Your task to perform on an android device: Do I have any events this weekend? Image 0: 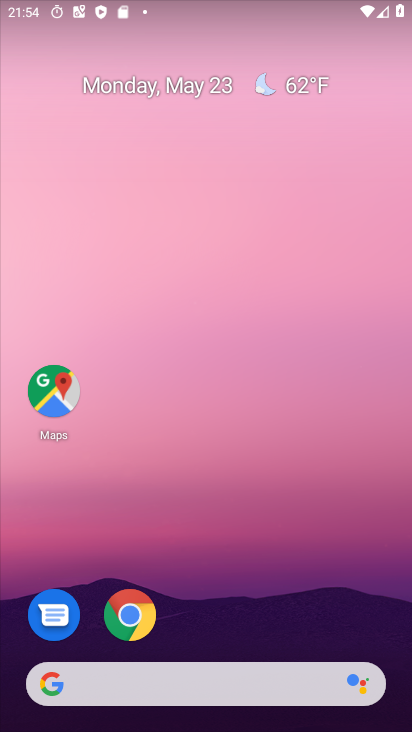
Step 0: drag from (236, 619) to (218, 106)
Your task to perform on an android device: Do I have any events this weekend? Image 1: 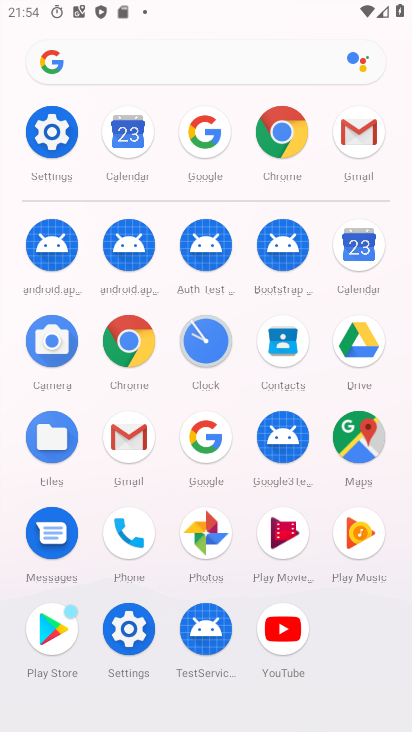
Step 1: click (355, 243)
Your task to perform on an android device: Do I have any events this weekend? Image 2: 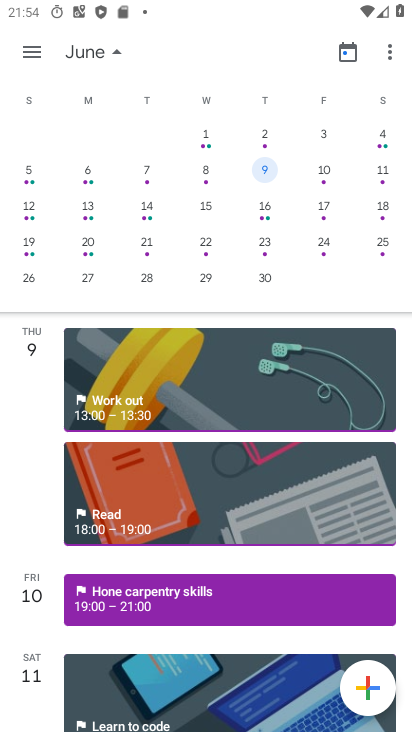
Step 2: drag from (69, 294) to (394, 278)
Your task to perform on an android device: Do I have any events this weekend? Image 3: 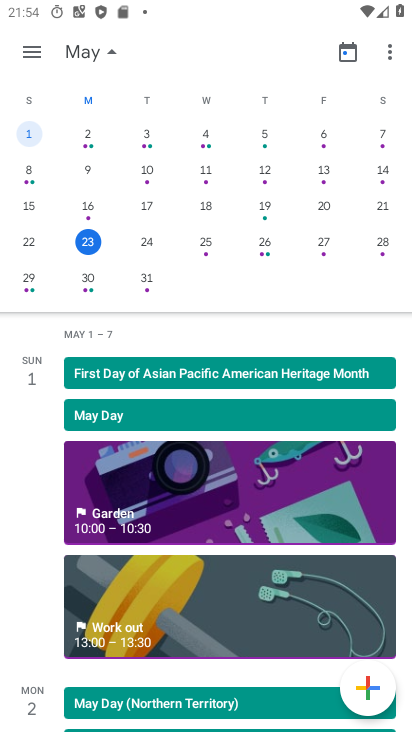
Step 3: click (152, 238)
Your task to perform on an android device: Do I have any events this weekend? Image 4: 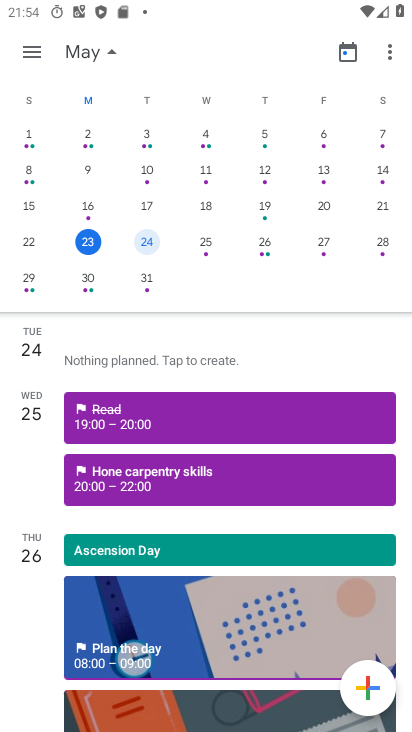
Step 4: task complete